Your task to perform on an android device: Do I have any events tomorrow? Image 0: 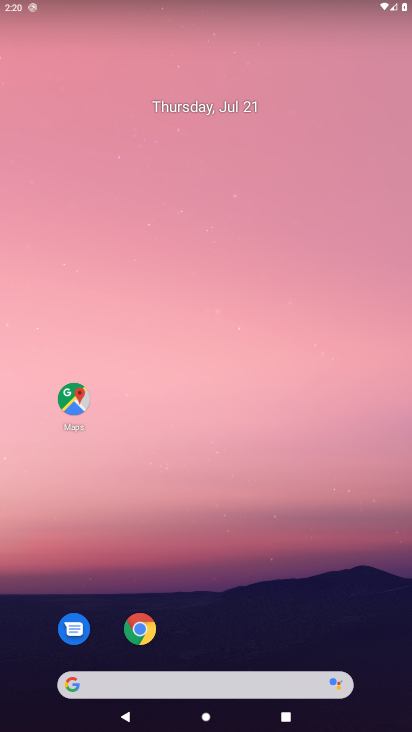
Step 0: drag from (48, 685) to (171, 393)
Your task to perform on an android device: Do I have any events tomorrow? Image 1: 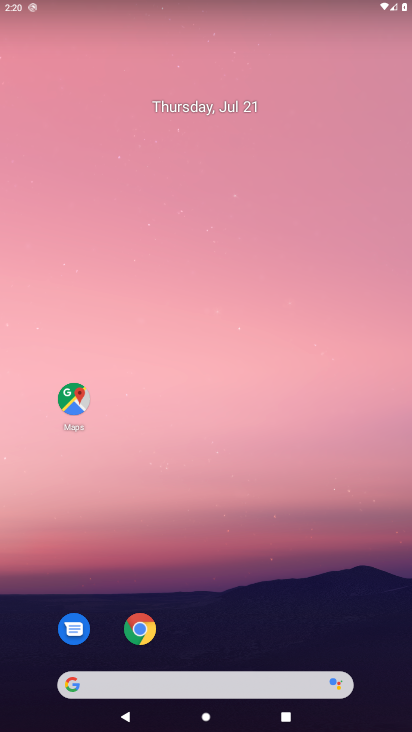
Step 1: drag from (37, 667) to (149, 323)
Your task to perform on an android device: Do I have any events tomorrow? Image 2: 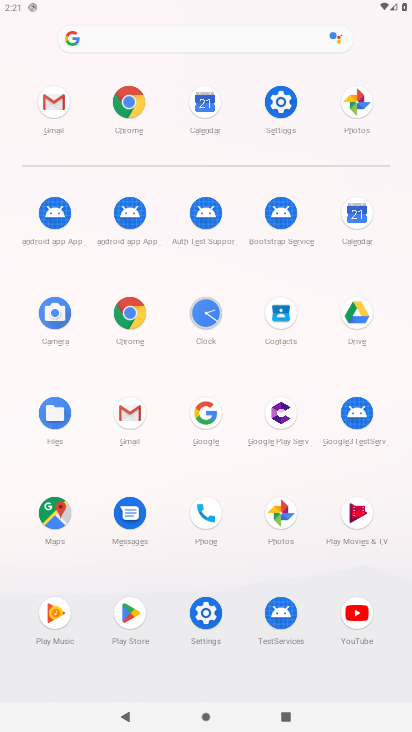
Step 2: click (352, 214)
Your task to perform on an android device: Do I have any events tomorrow? Image 3: 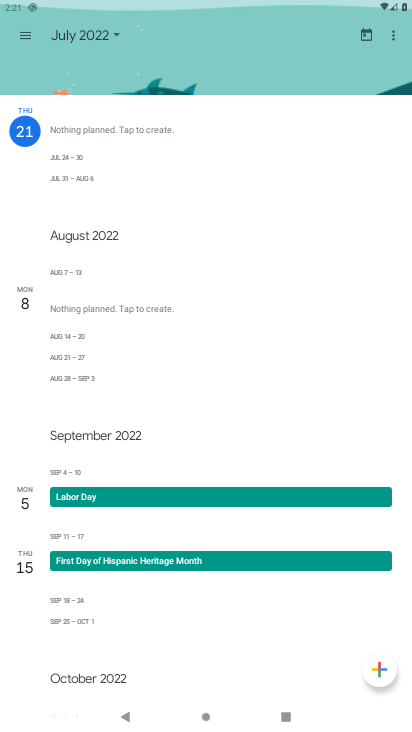
Step 3: task complete